Your task to perform on an android device: open app "Google Chrome" (install if not already installed) Image 0: 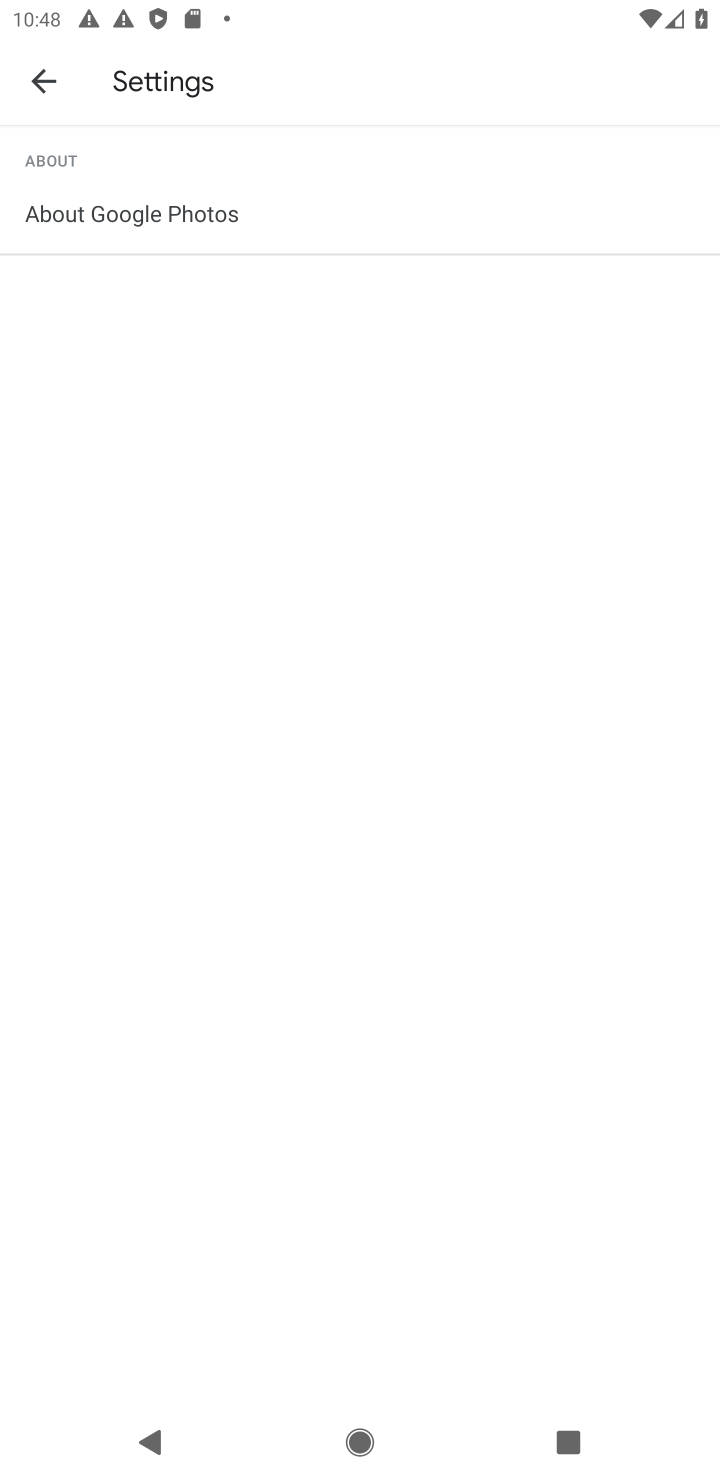
Step 0: press home button
Your task to perform on an android device: open app "Google Chrome" (install if not already installed) Image 1: 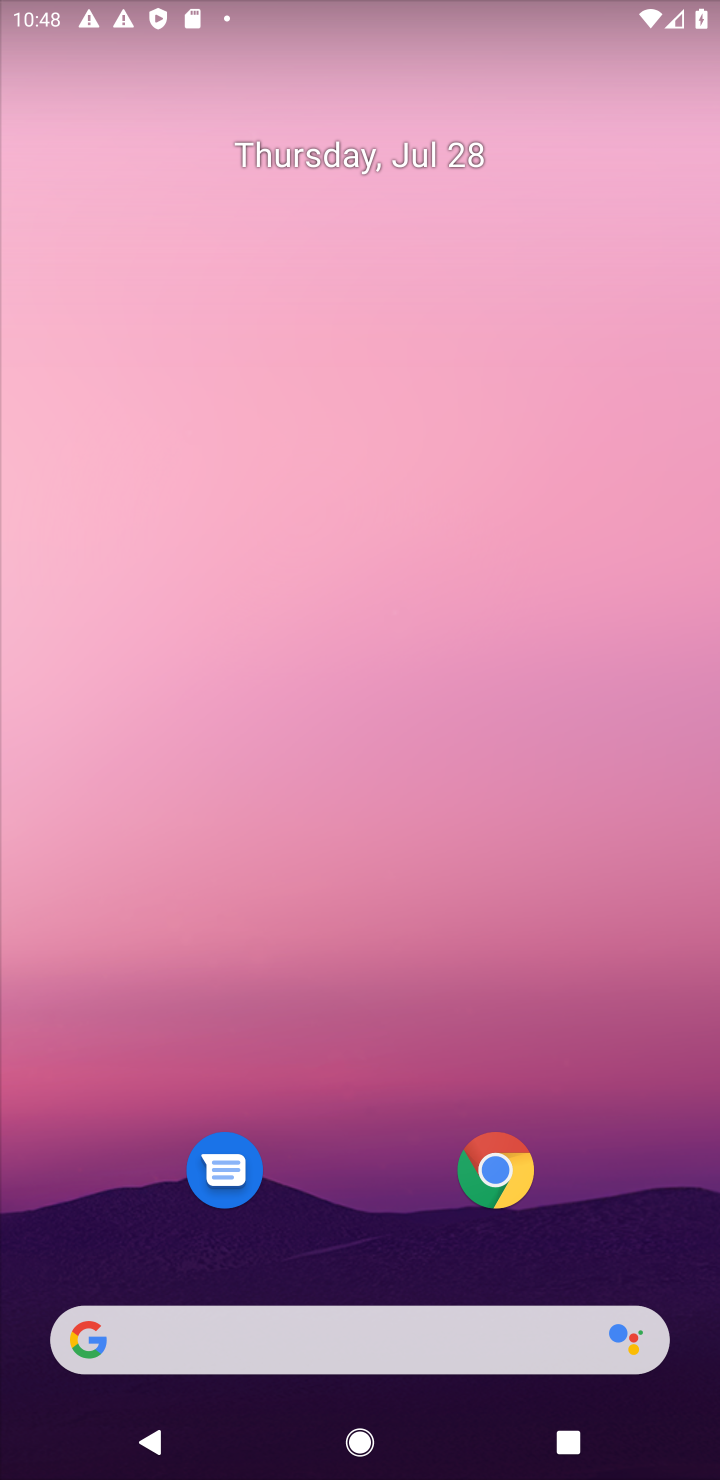
Step 1: drag from (394, 1187) to (414, 17)
Your task to perform on an android device: open app "Google Chrome" (install if not already installed) Image 2: 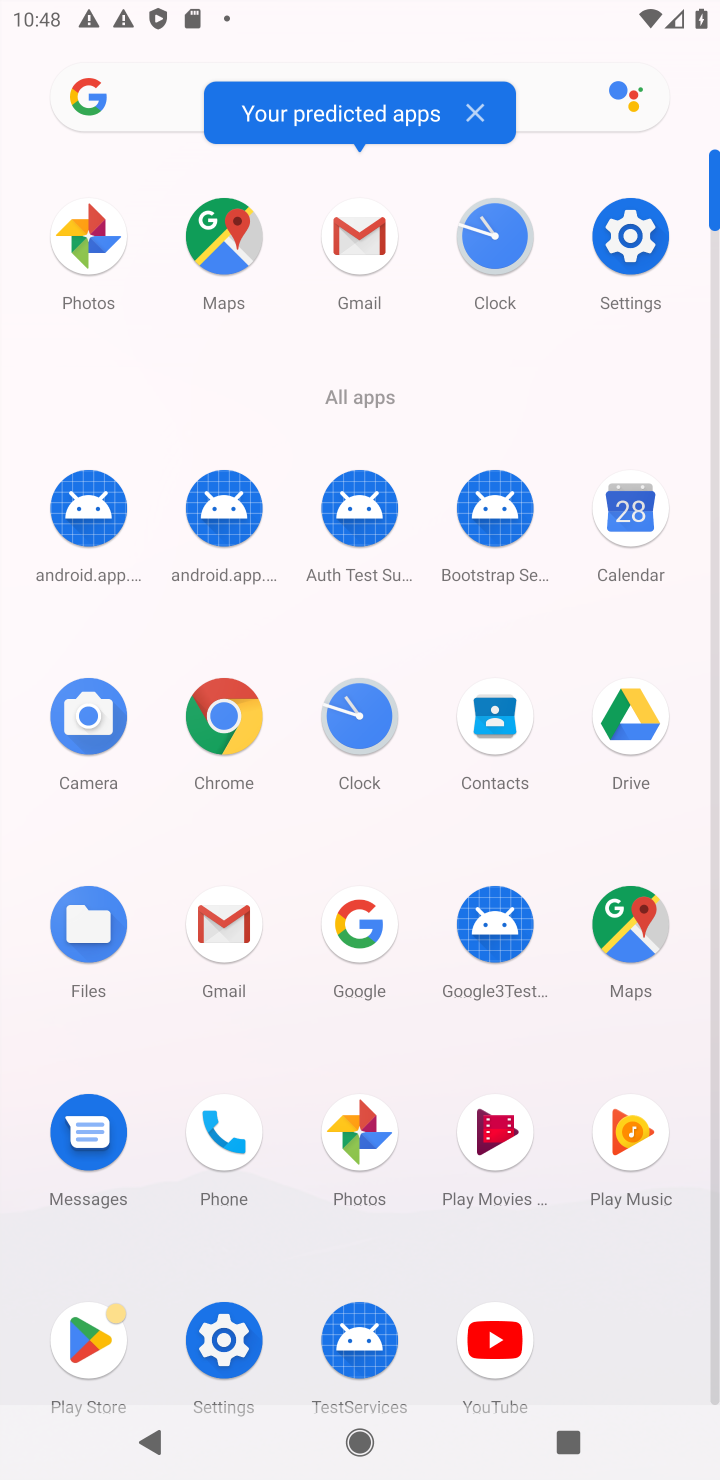
Step 2: click (215, 694)
Your task to perform on an android device: open app "Google Chrome" (install if not already installed) Image 3: 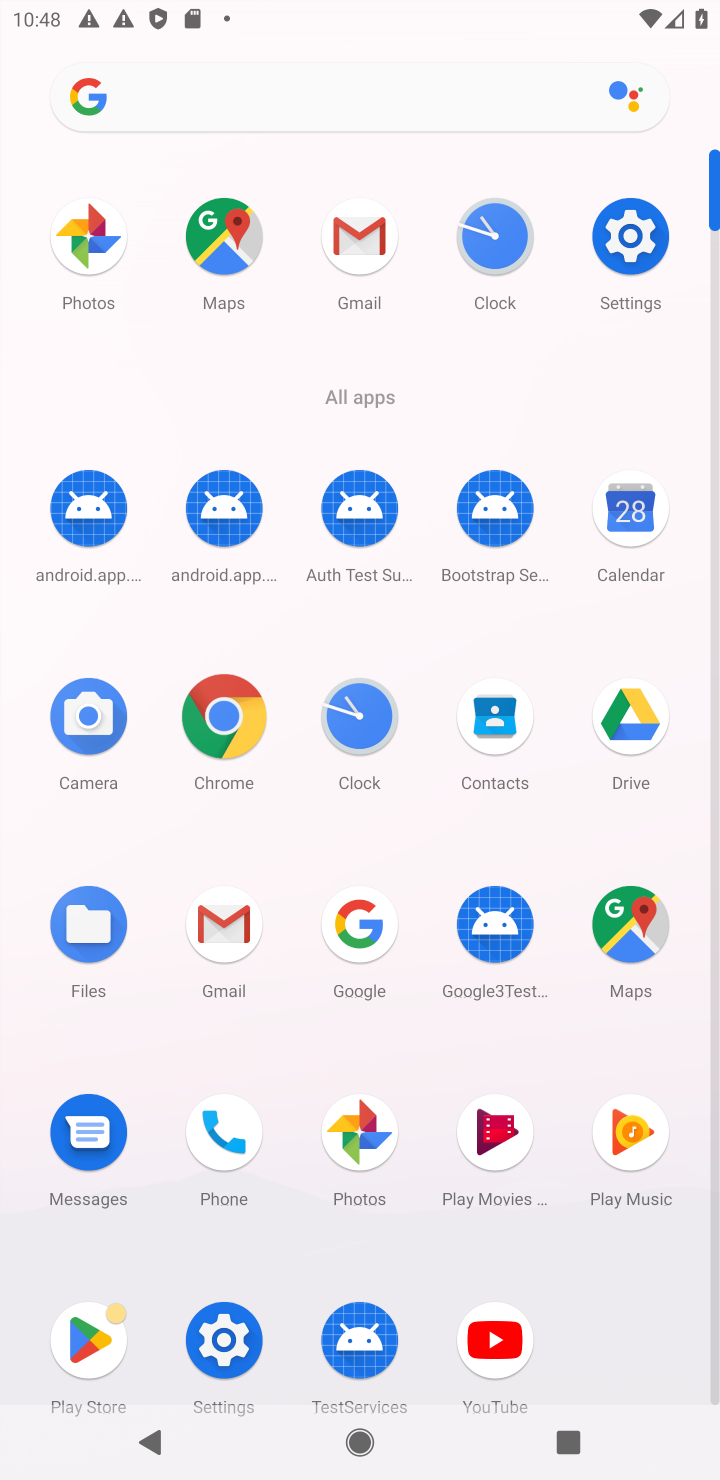
Step 3: press home button
Your task to perform on an android device: open app "Google Chrome" (install if not already installed) Image 4: 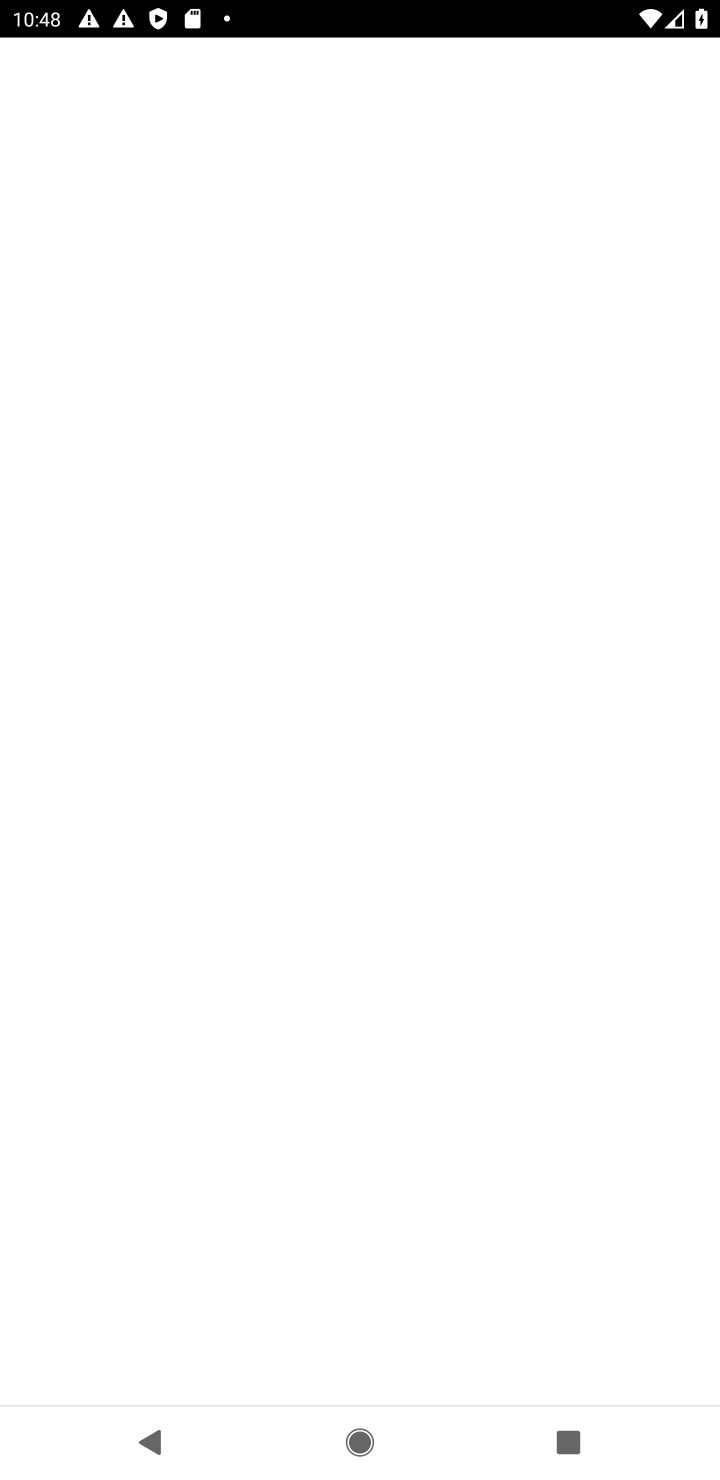
Step 4: press home button
Your task to perform on an android device: open app "Google Chrome" (install if not already installed) Image 5: 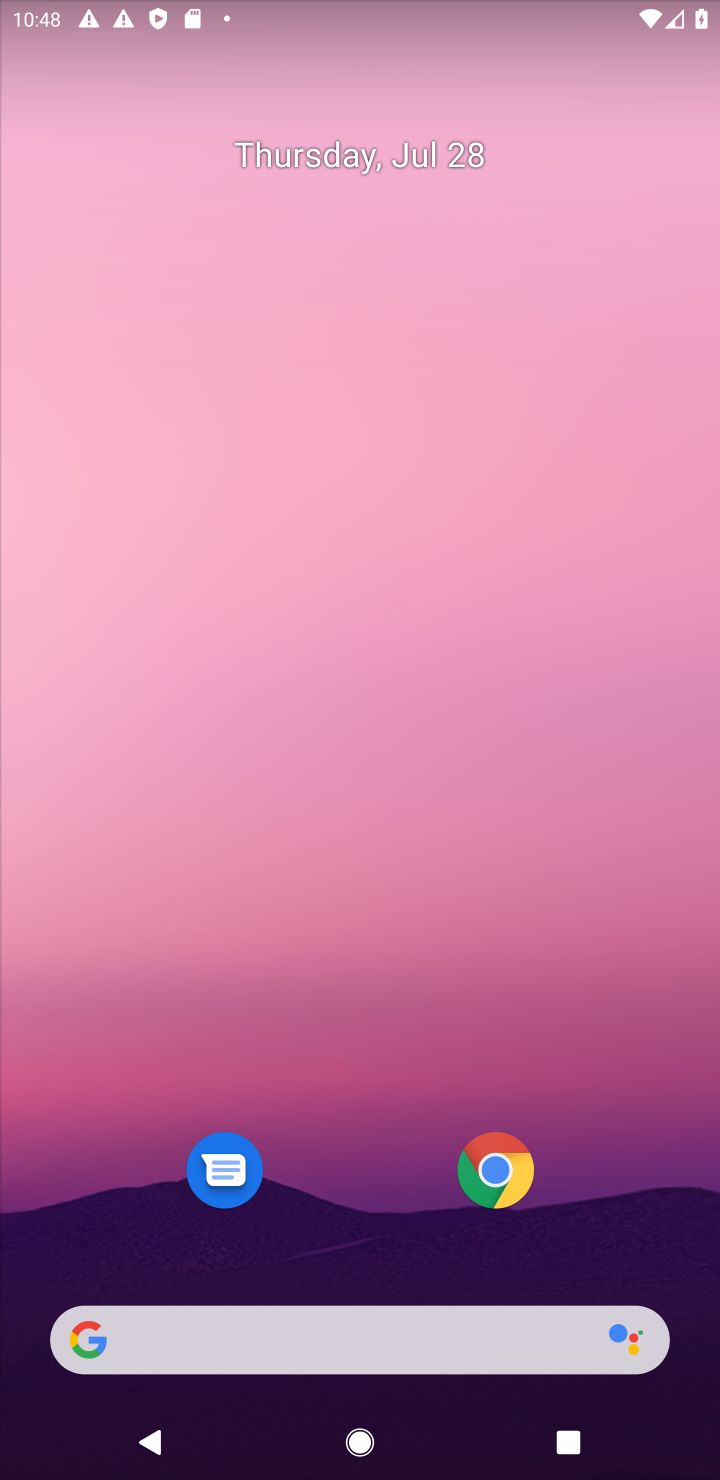
Step 5: drag from (502, 1329) to (600, 49)
Your task to perform on an android device: open app "Google Chrome" (install if not already installed) Image 6: 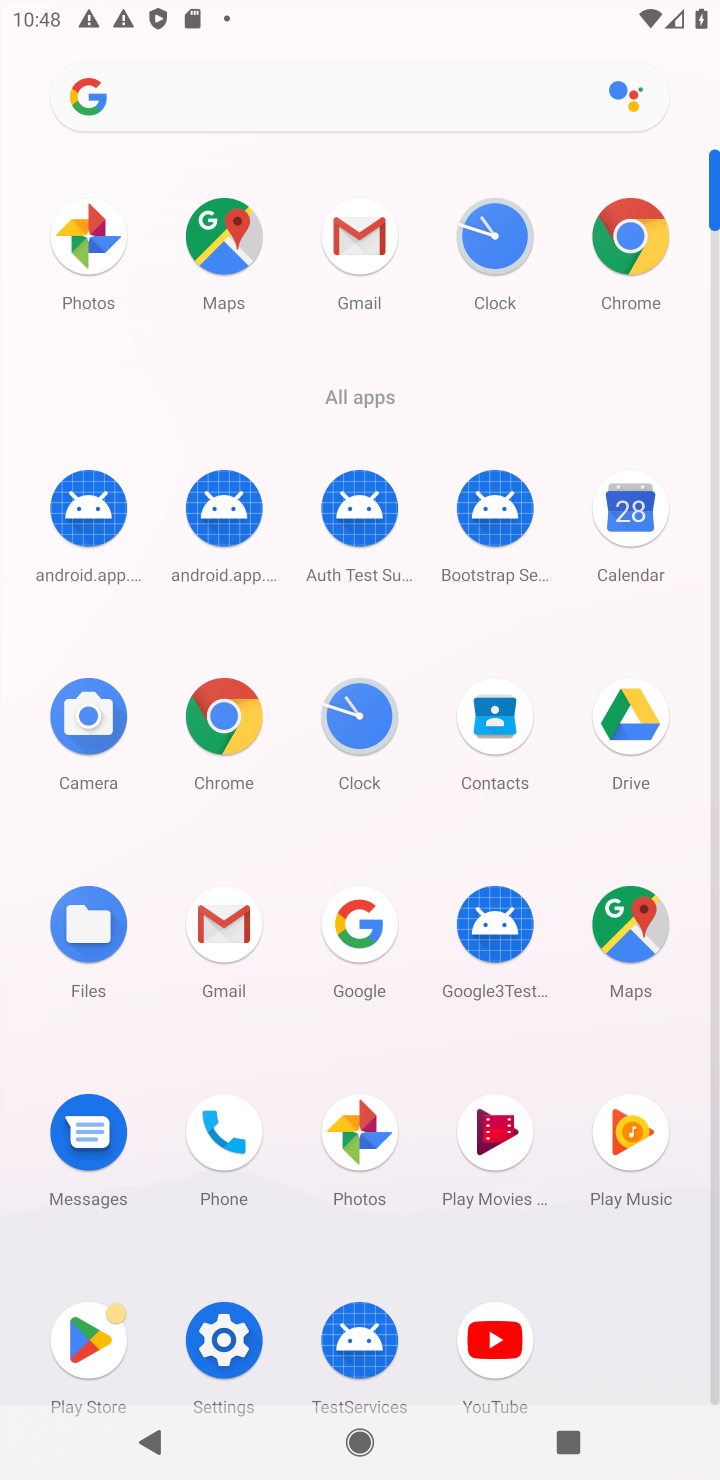
Step 6: click (96, 1351)
Your task to perform on an android device: open app "Google Chrome" (install if not already installed) Image 7: 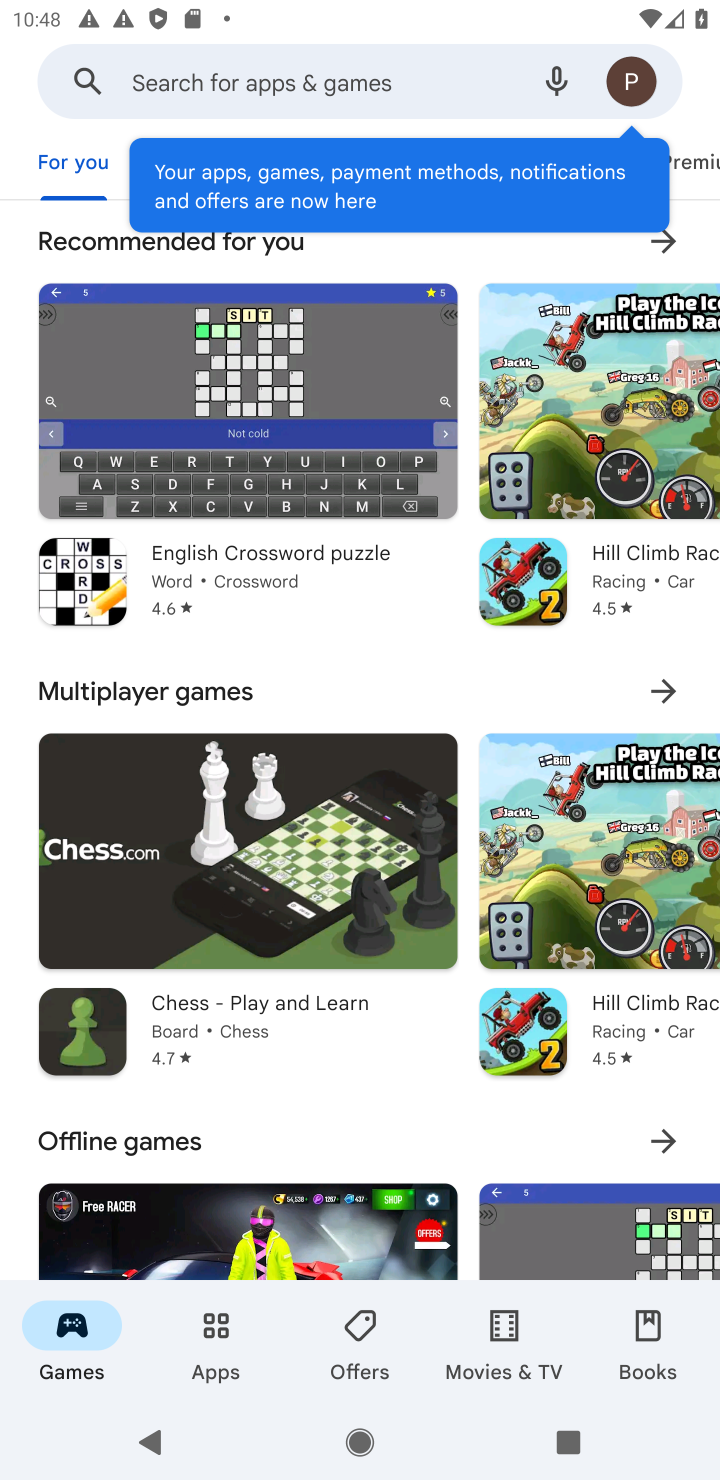
Step 7: click (338, 65)
Your task to perform on an android device: open app "Google Chrome" (install if not already installed) Image 8: 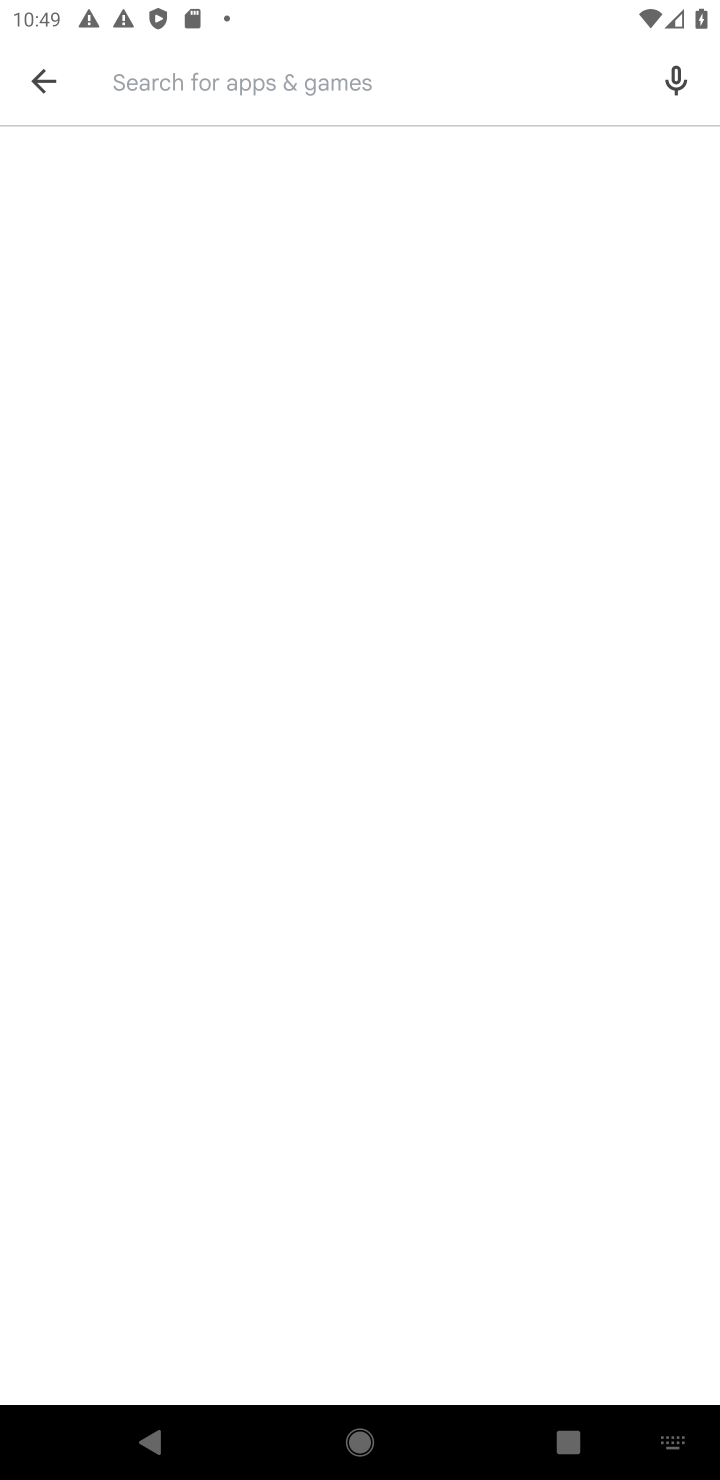
Step 8: type "Google chrome"
Your task to perform on an android device: open app "Google Chrome" (install if not already installed) Image 9: 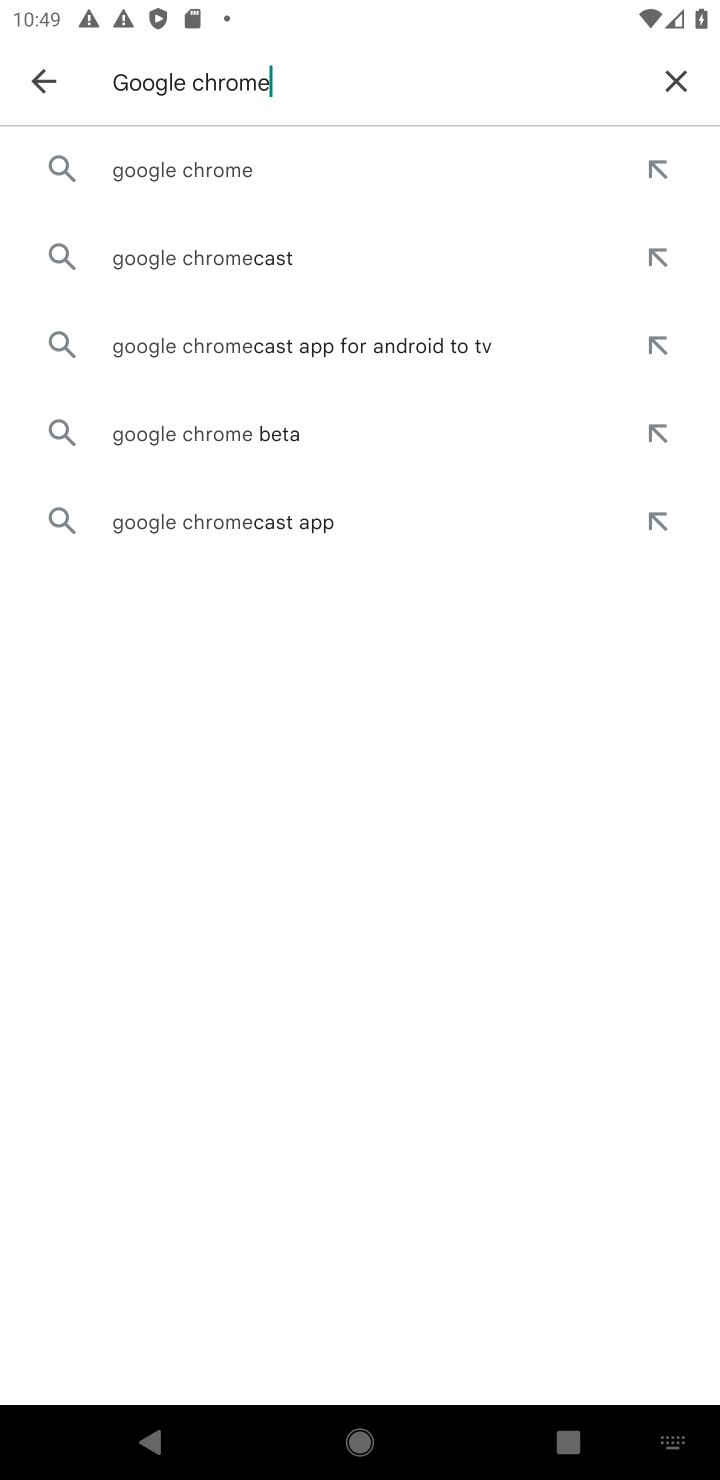
Step 9: click (261, 181)
Your task to perform on an android device: open app "Google Chrome" (install if not already installed) Image 10: 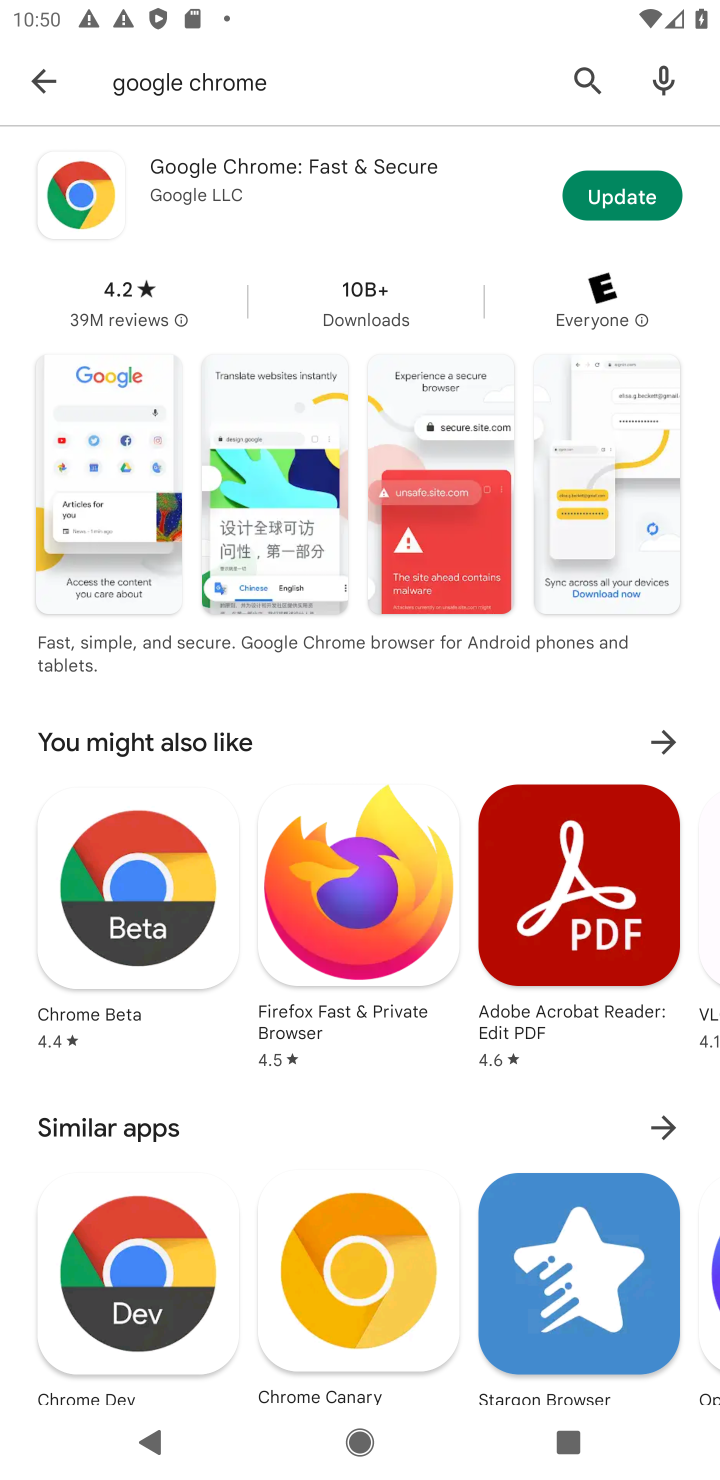
Step 10: task complete